Your task to perform on an android device: Search for sushi restaurants on Maps Image 0: 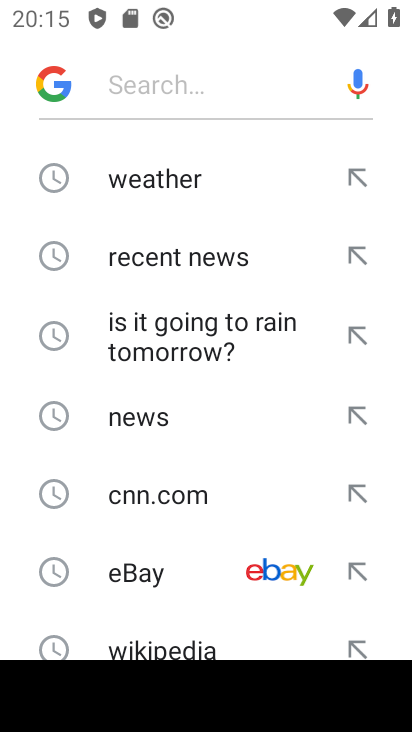
Step 0: press home button
Your task to perform on an android device: Search for sushi restaurants on Maps Image 1: 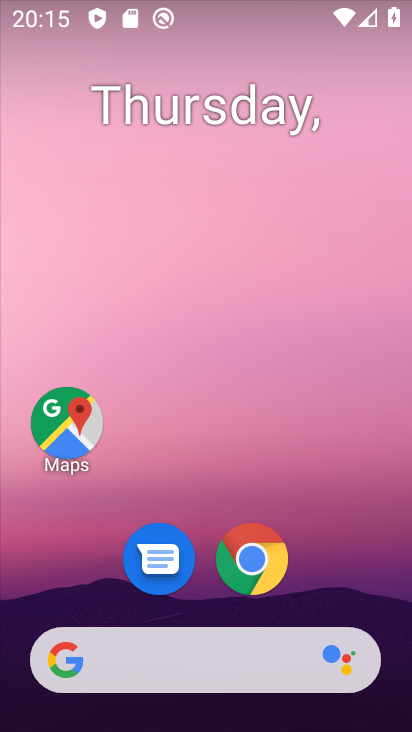
Step 1: click (85, 447)
Your task to perform on an android device: Search for sushi restaurants on Maps Image 2: 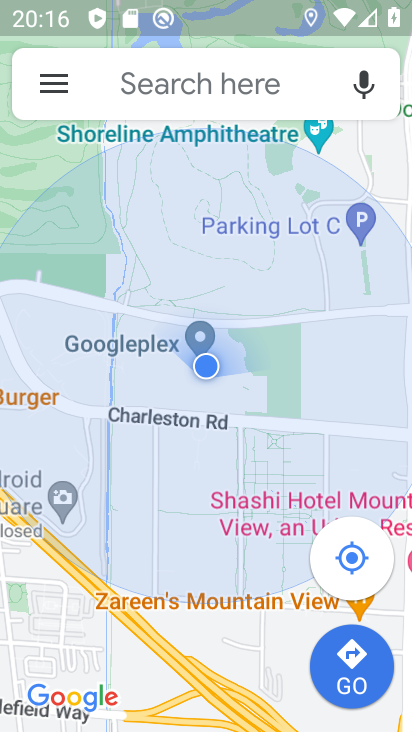
Step 2: click (226, 69)
Your task to perform on an android device: Search for sushi restaurants on Maps Image 3: 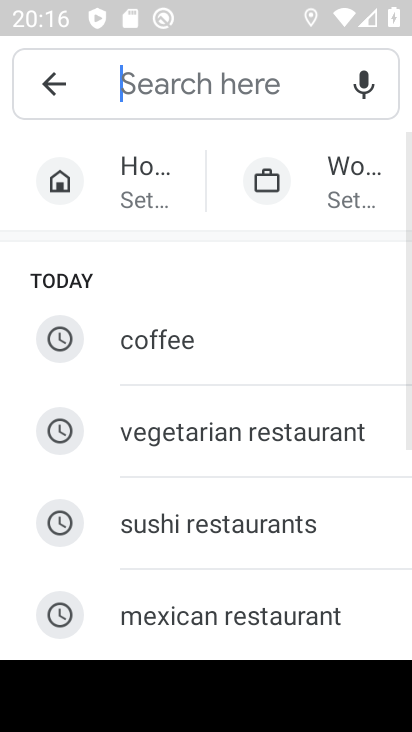
Step 3: click (198, 537)
Your task to perform on an android device: Search for sushi restaurants on Maps Image 4: 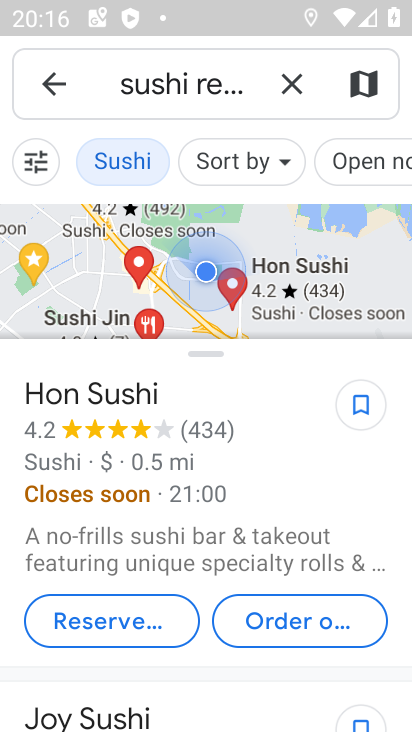
Step 4: task complete